Your task to perform on an android device: Check the weather Image 0: 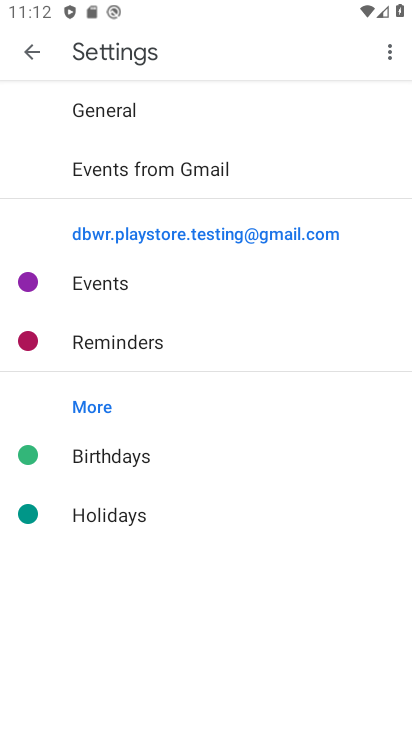
Step 0: press home button
Your task to perform on an android device: Check the weather Image 1: 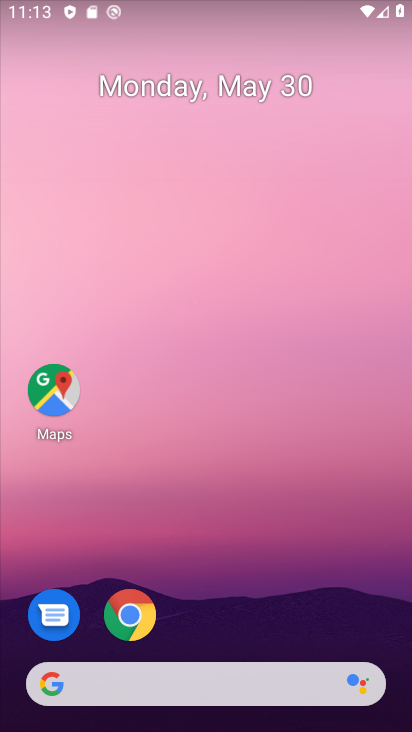
Step 1: click (241, 681)
Your task to perform on an android device: Check the weather Image 2: 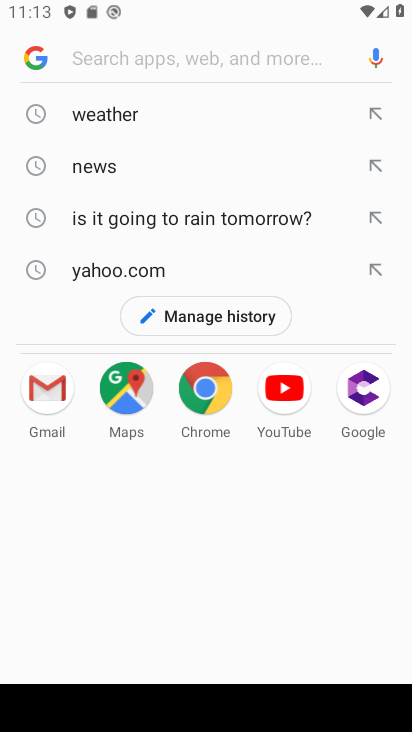
Step 2: click (117, 109)
Your task to perform on an android device: Check the weather Image 3: 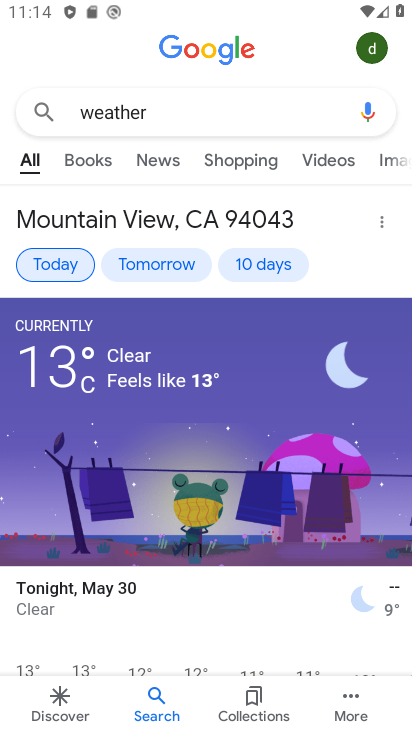
Step 3: task complete